Your task to perform on an android device: create a new album in the google photos Image 0: 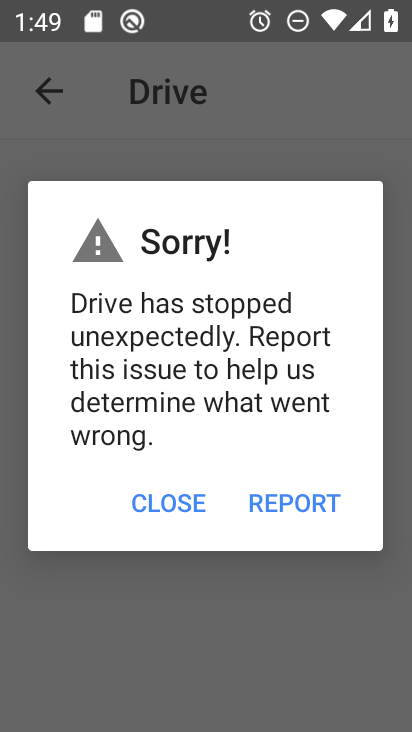
Step 0: press home button
Your task to perform on an android device: create a new album in the google photos Image 1: 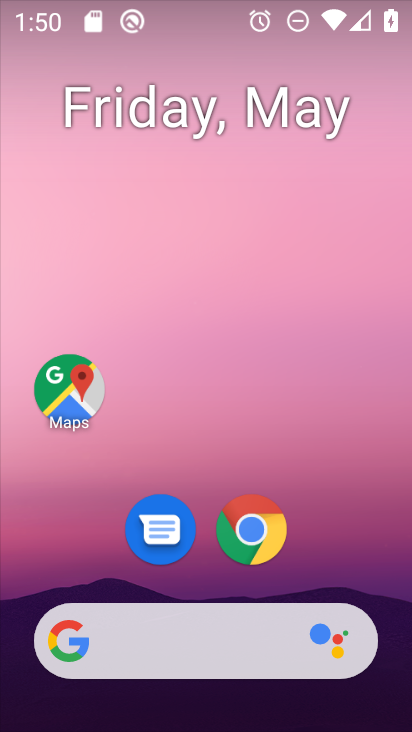
Step 1: drag from (377, 528) to (373, 302)
Your task to perform on an android device: create a new album in the google photos Image 2: 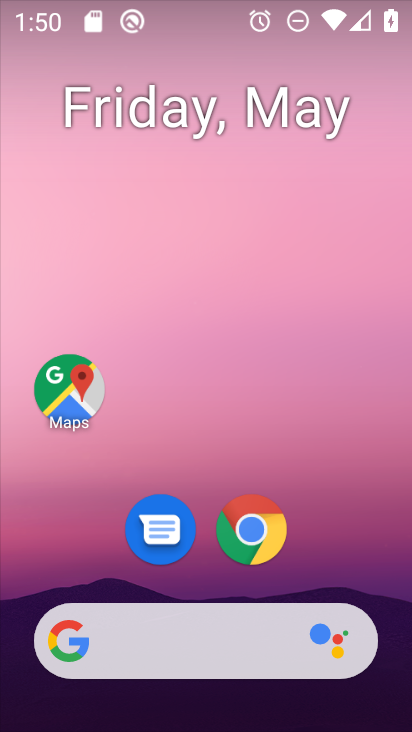
Step 2: drag from (396, 675) to (371, 193)
Your task to perform on an android device: create a new album in the google photos Image 3: 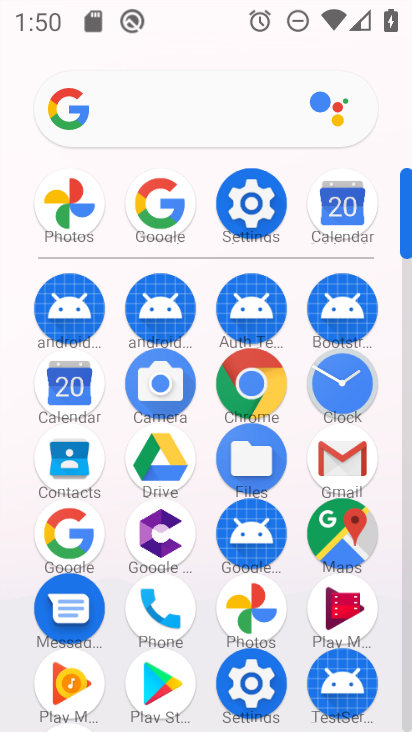
Step 3: click (257, 598)
Your task to perform on an android device: create a new album in the google photos Image 4: 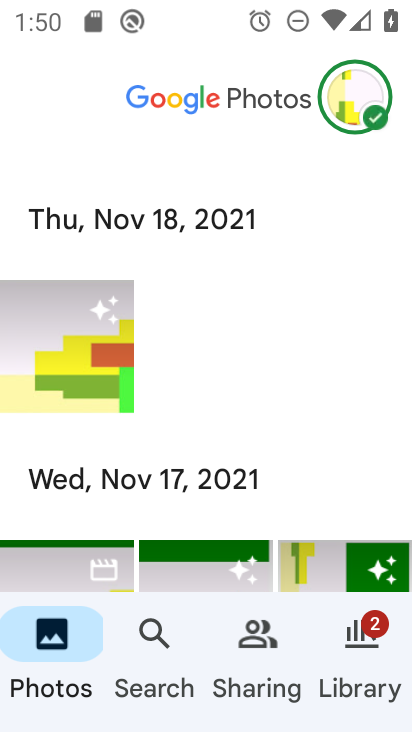
Step 4: task complete